Your task to perform on an android device: How much does a 2 bedroom apartment rent for in Denver? Image 0: 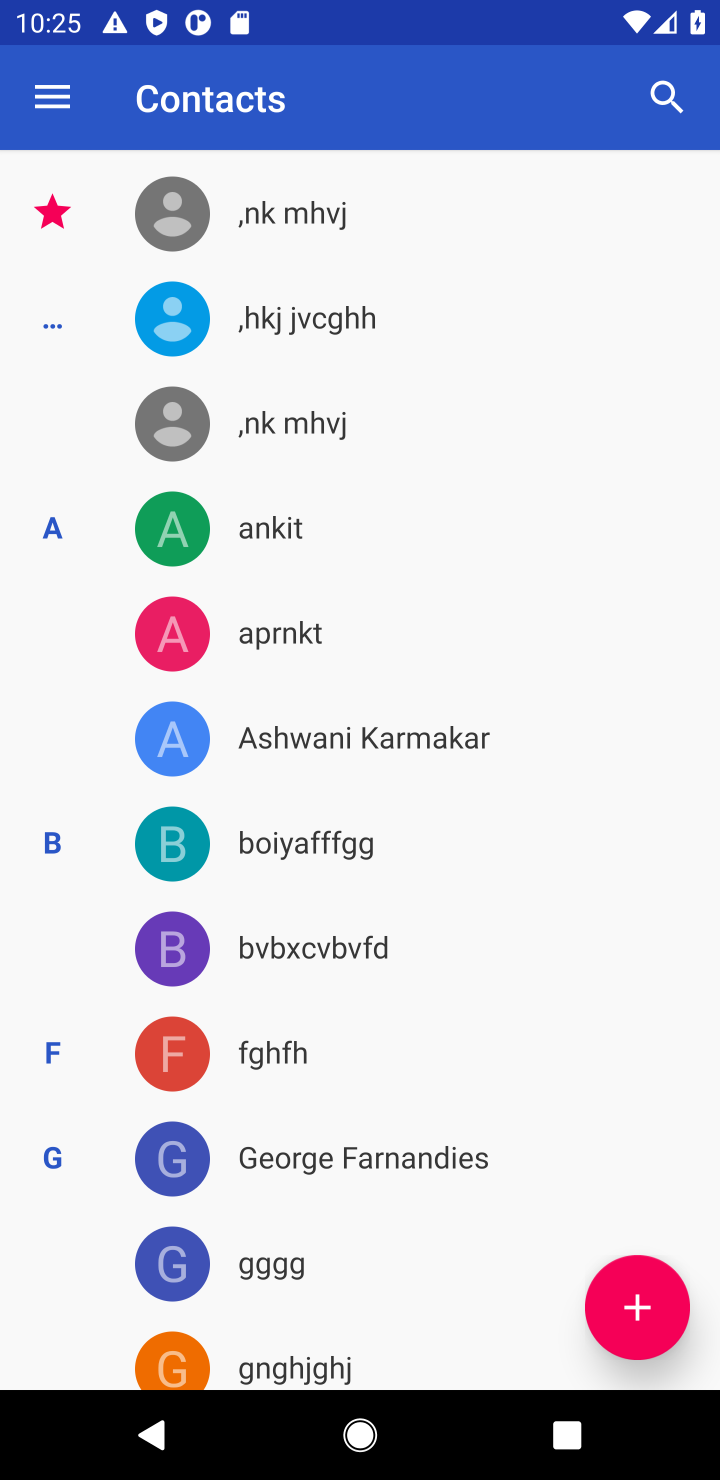
Step 0: press home button
Your task to perform on an android device: How much does a 2 bedroom apartment rent for in Denver? Image 1: 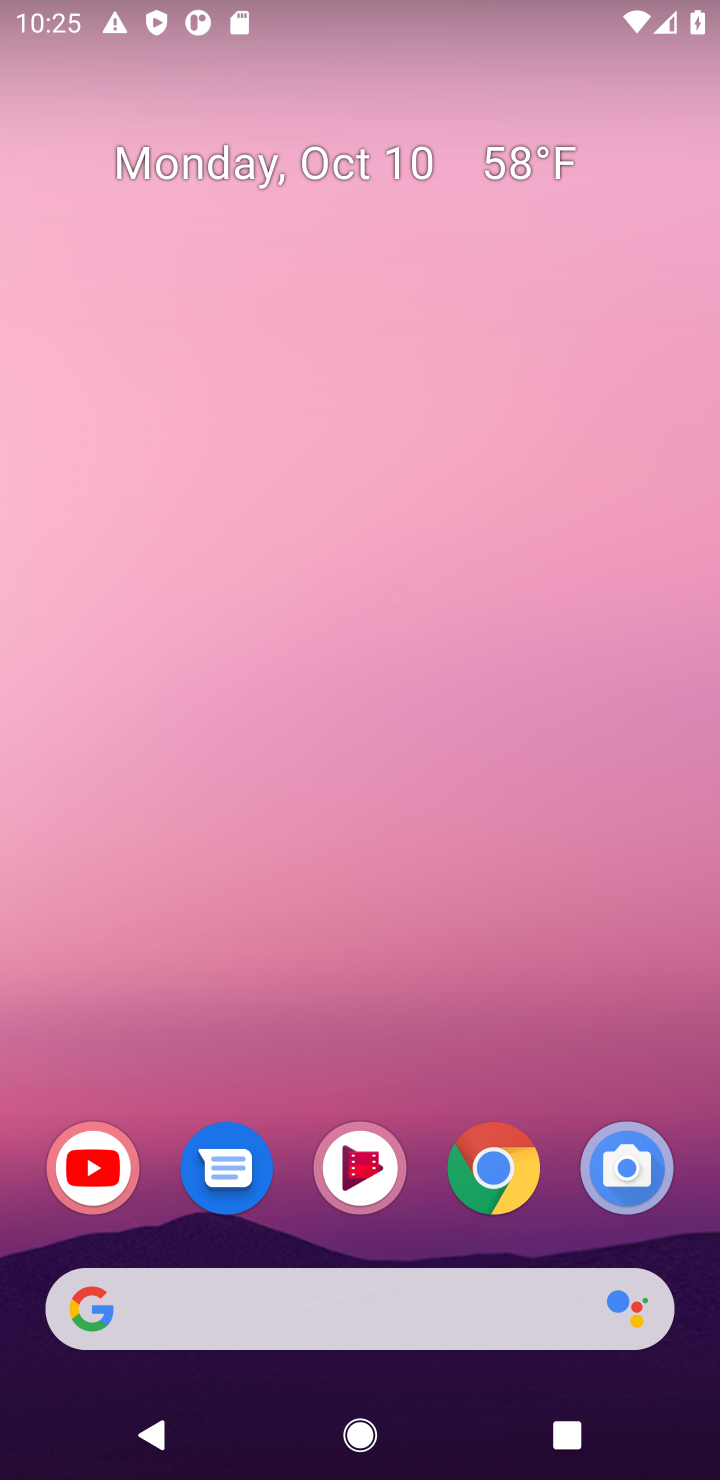
Step 1: click (352, 1298)
Your task to perform on an android device: How much does a 2 bedroom apartment rent for in Denver? Image 2: 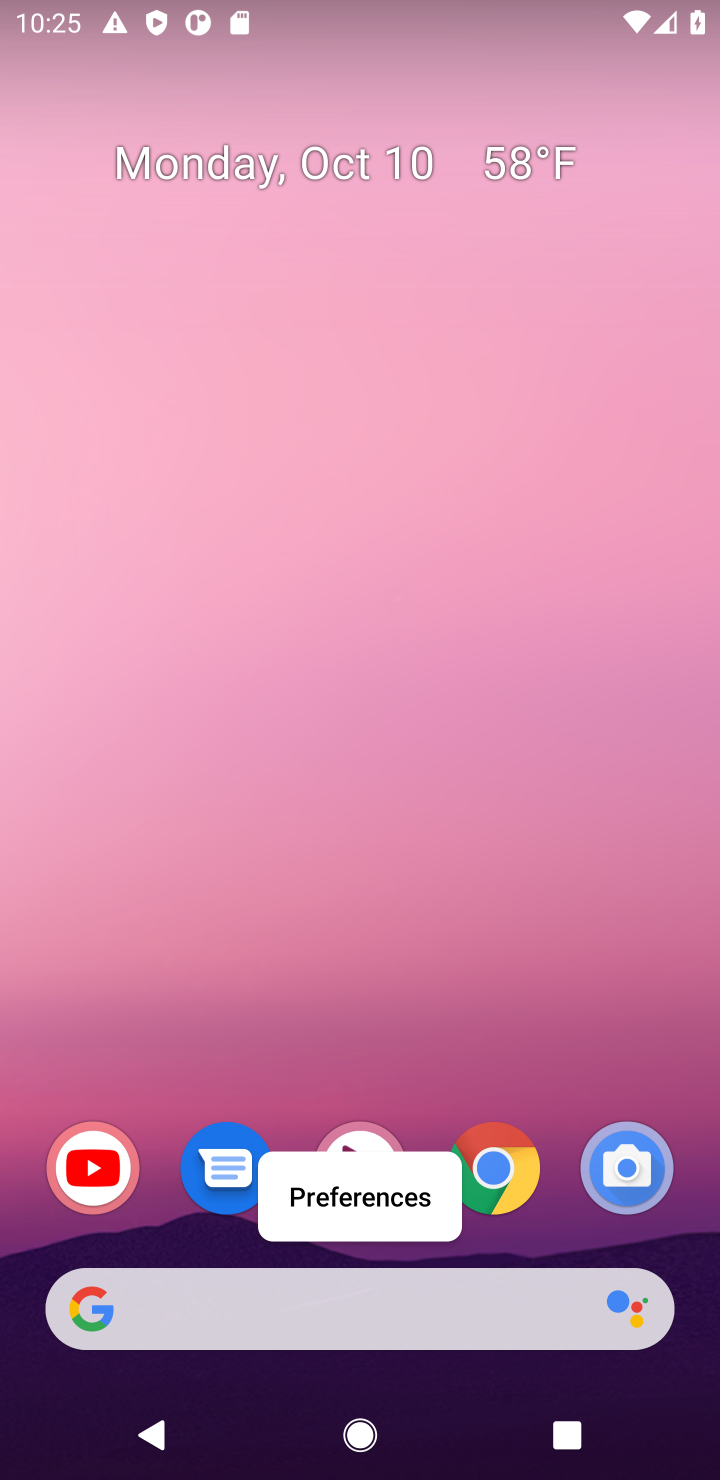
Step 2: click (340, 1305)
Your task to perform on an android device: How much does a 2 bedroom apartment rent for in Denver? Image 3: 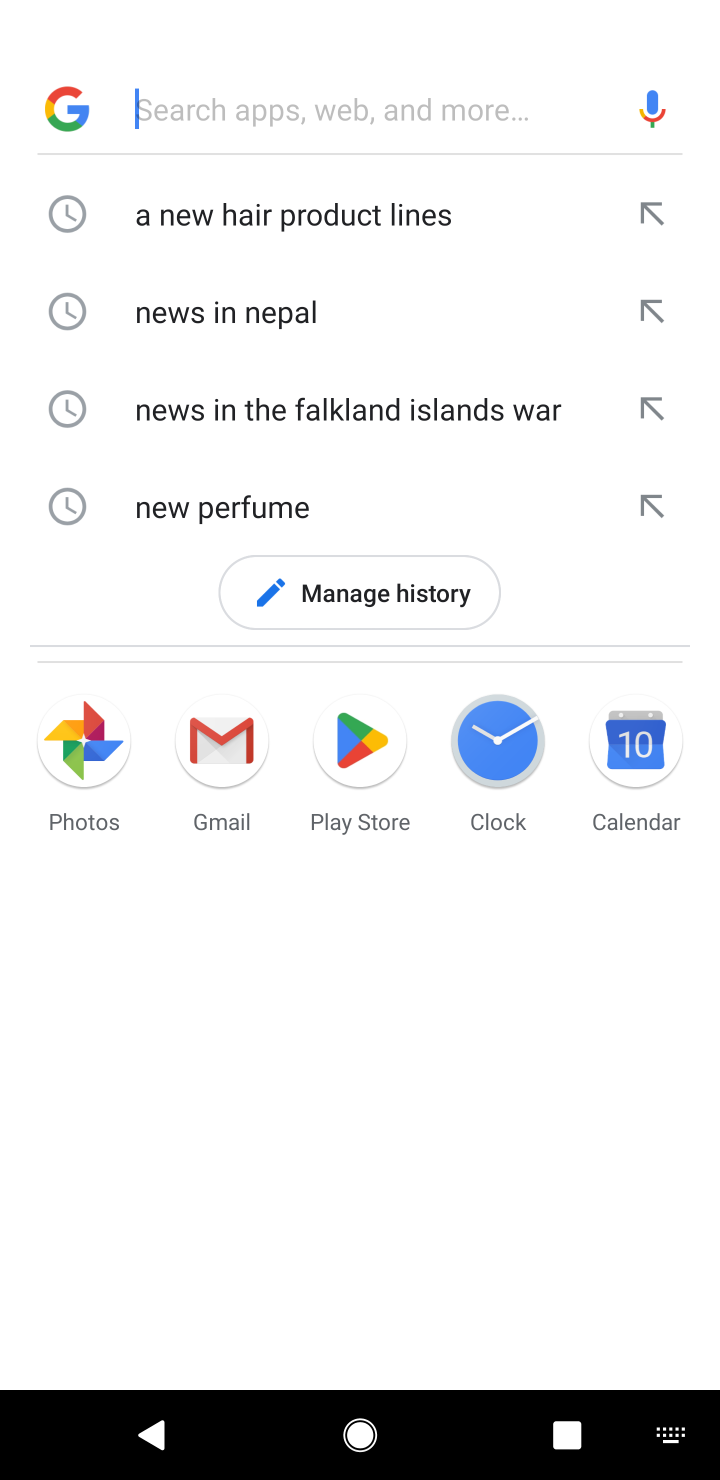
Step 3: type "2 bedroom apartment rent for in Denver"
Your task to perform on an android device: How much does a 2 bedroom apartment rent for in Denver? Image 4: 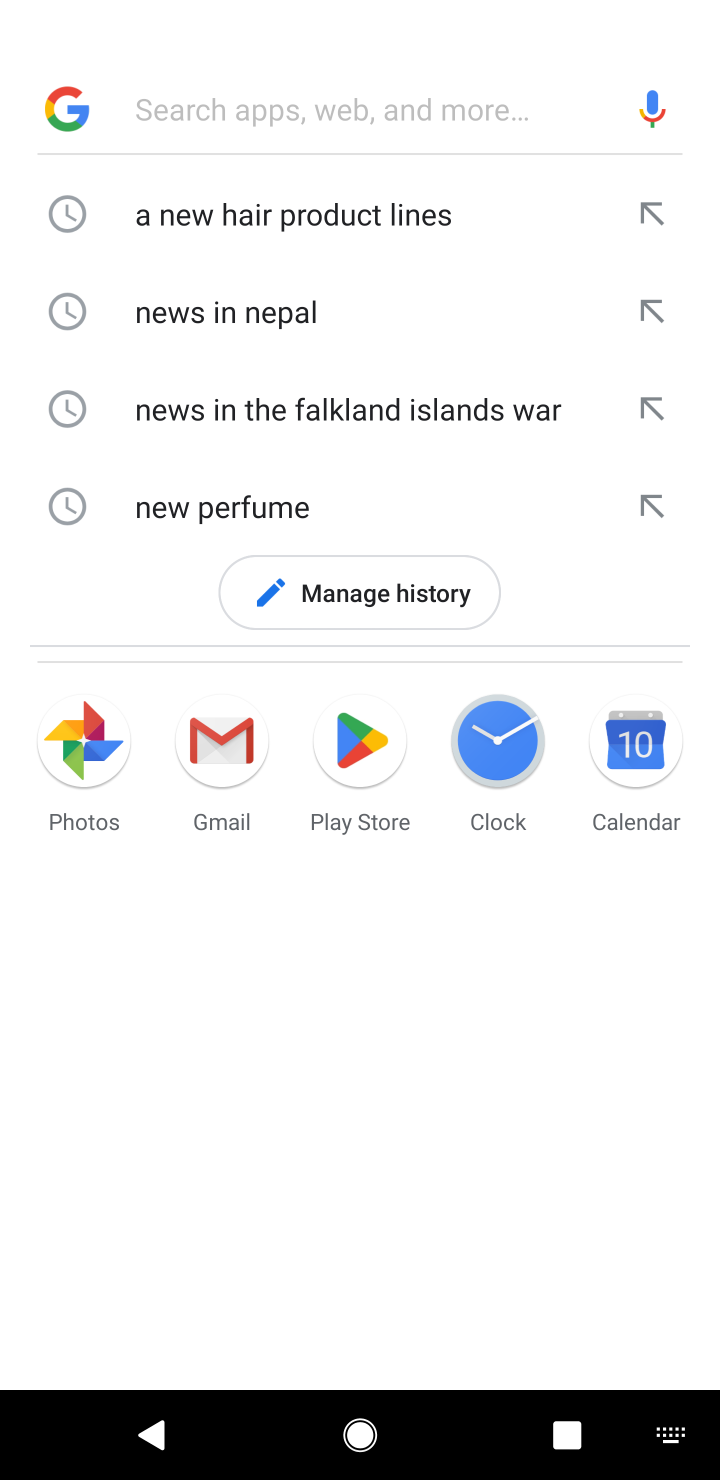
Step 4: click (361, 102)
Your task to perform on an android device: How much does a 2 bedroom apartment rent for in Denver? Image 5: 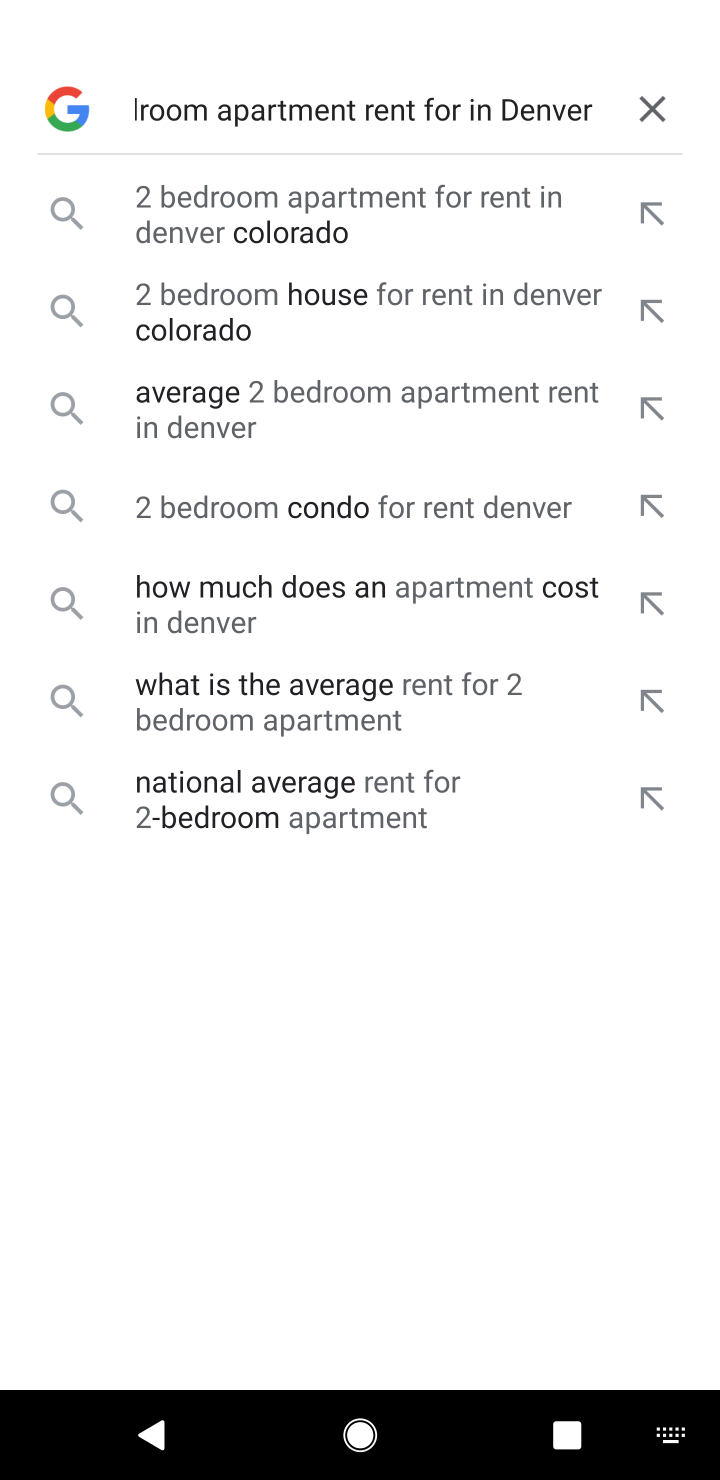
Step 5: type ""
Your task to perform on an android device: How much does a 2 bedroom apartment rent for in Denver? Image 6: 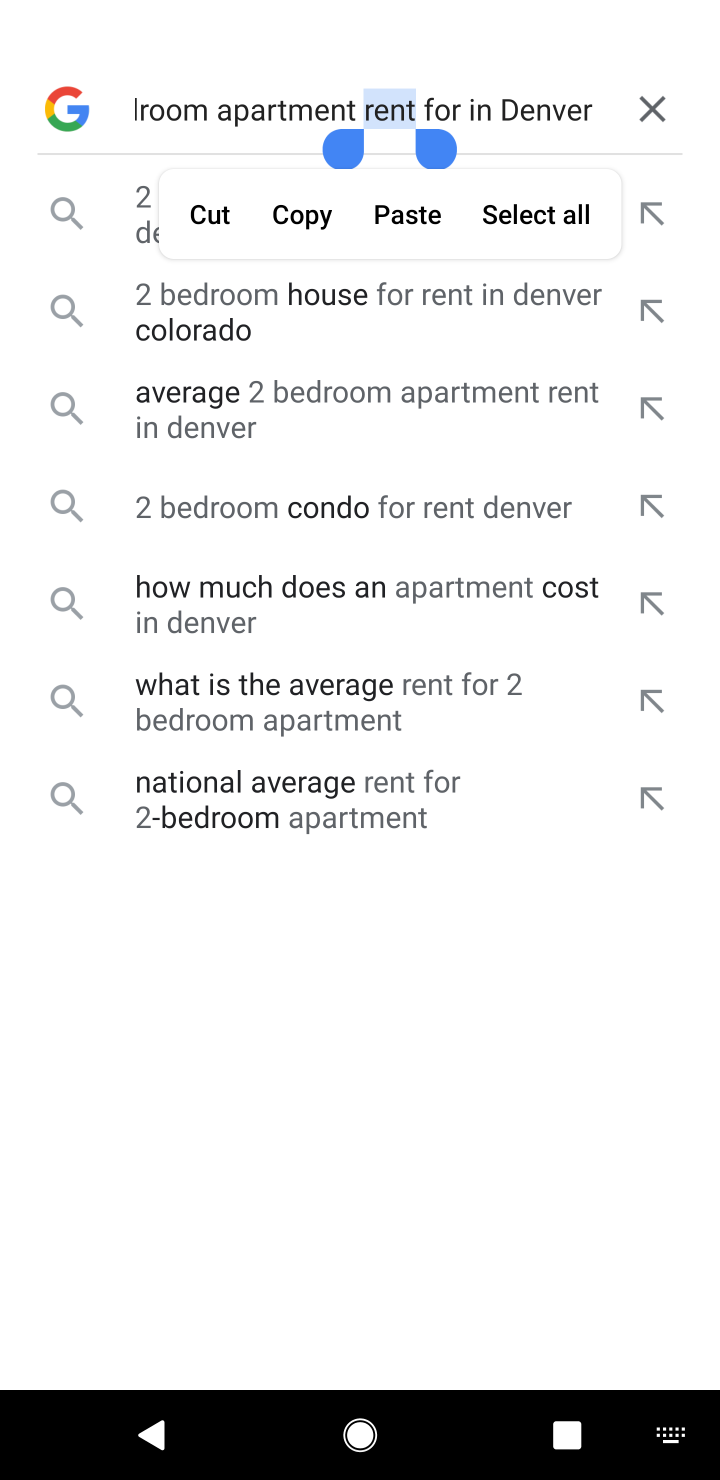
Step 6: click (274, 953)
Your task to perform on an android device: How much does a 2 bedroom apartment rent for in Denver? Image 7: 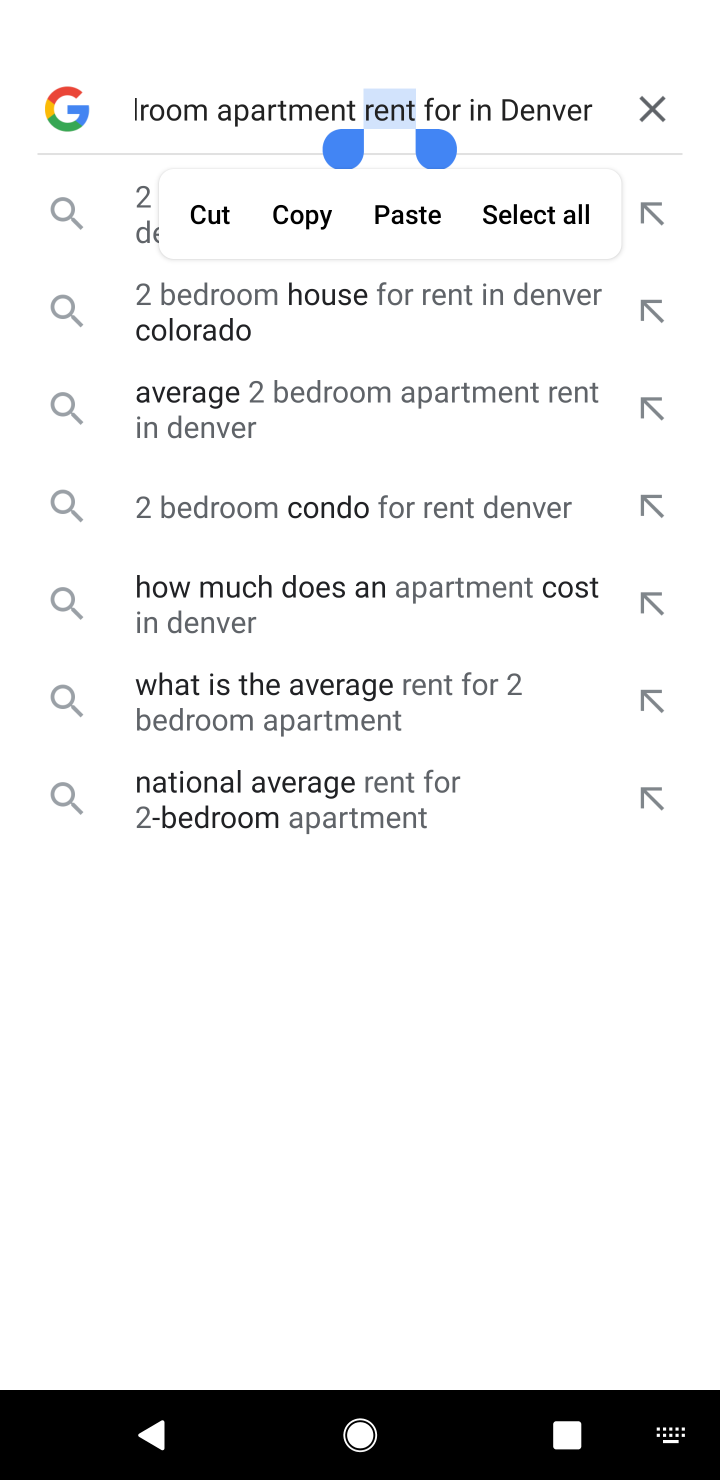
Step 7: click (132, 182)
Your task to perform on an android device: How much does a 2 bedroom apartment rent for in Denver? Image 8: 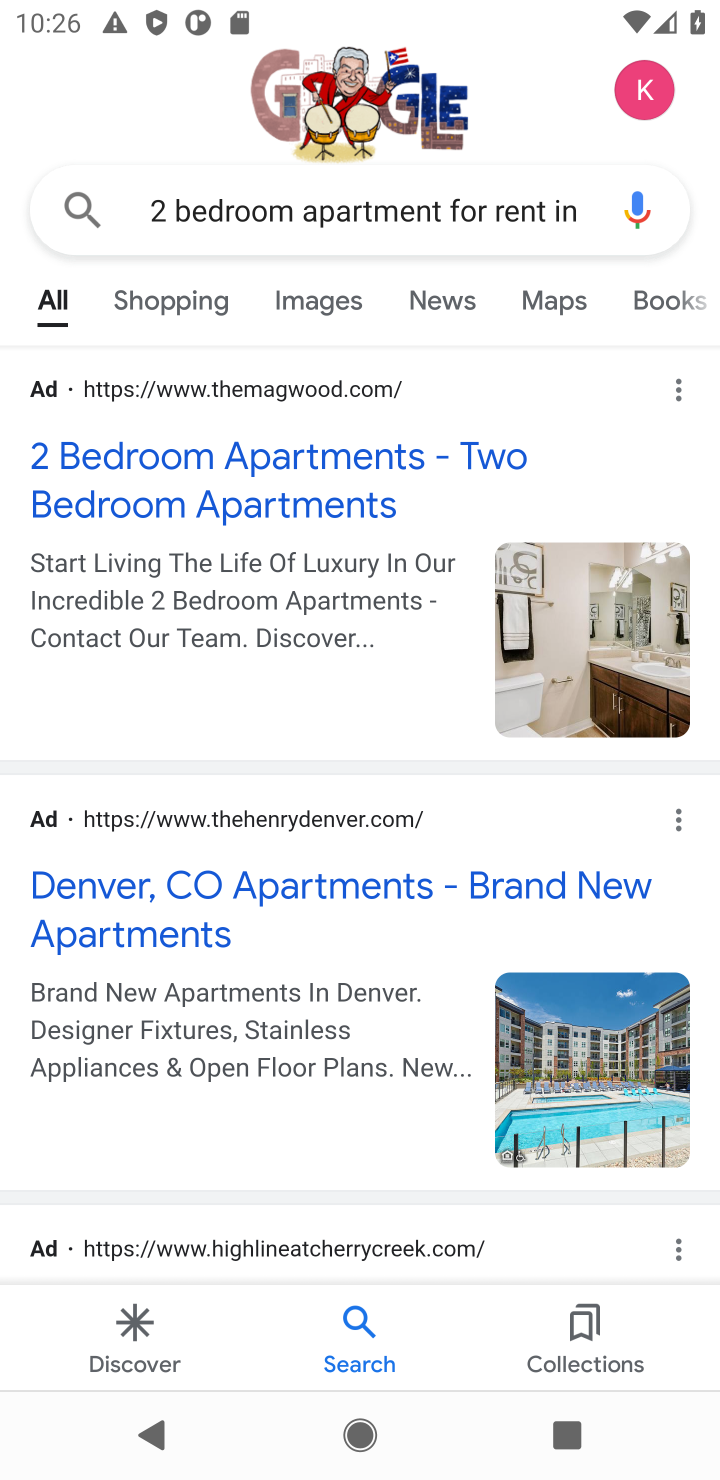
Step 8: drag from (256, 931) to (312, 242)
Your task to perform on an android device: How much does a 2 bedroom apartment rent for in Denver? Image 9: 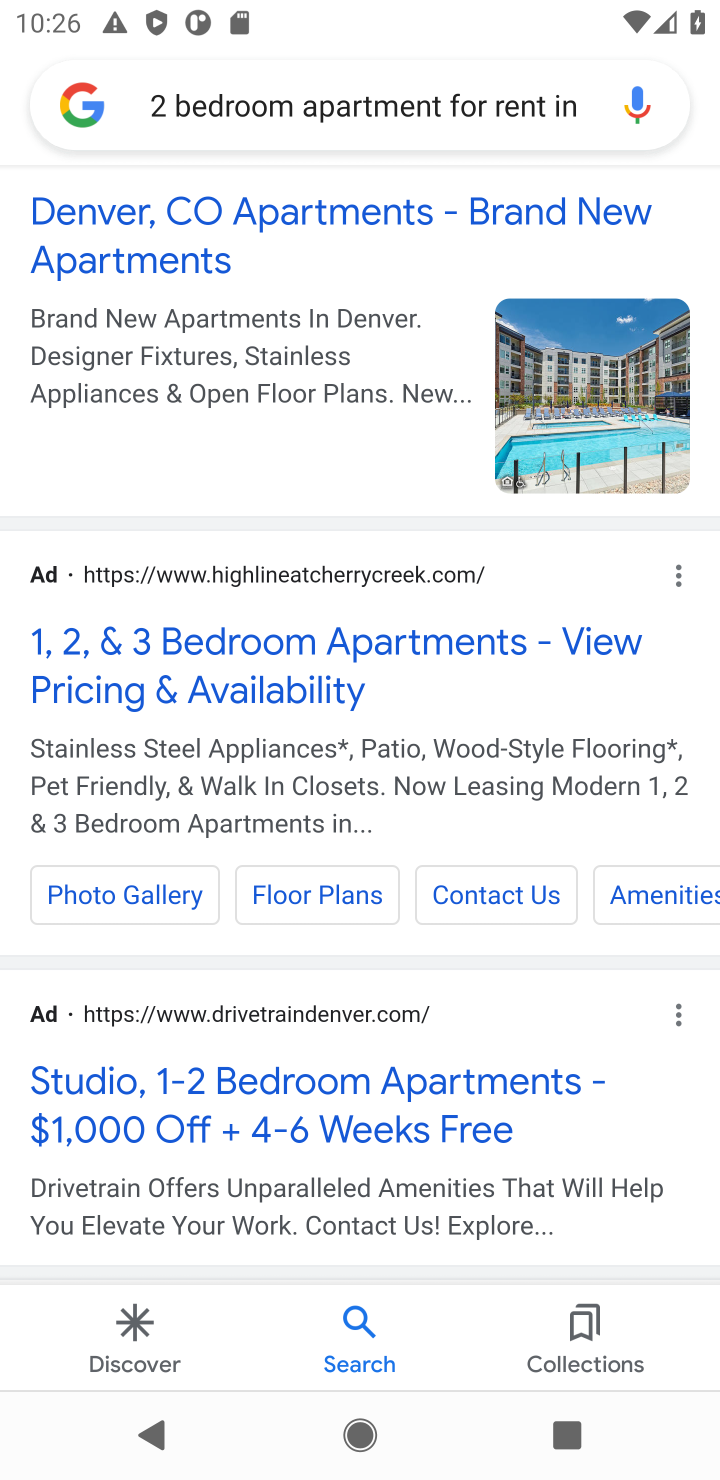
Step 9: drag from (302, 1032) to (344, 387)
Your task to perform on an android device: How much does a 2 bedroom apartment rent for in Denver? Image 10: 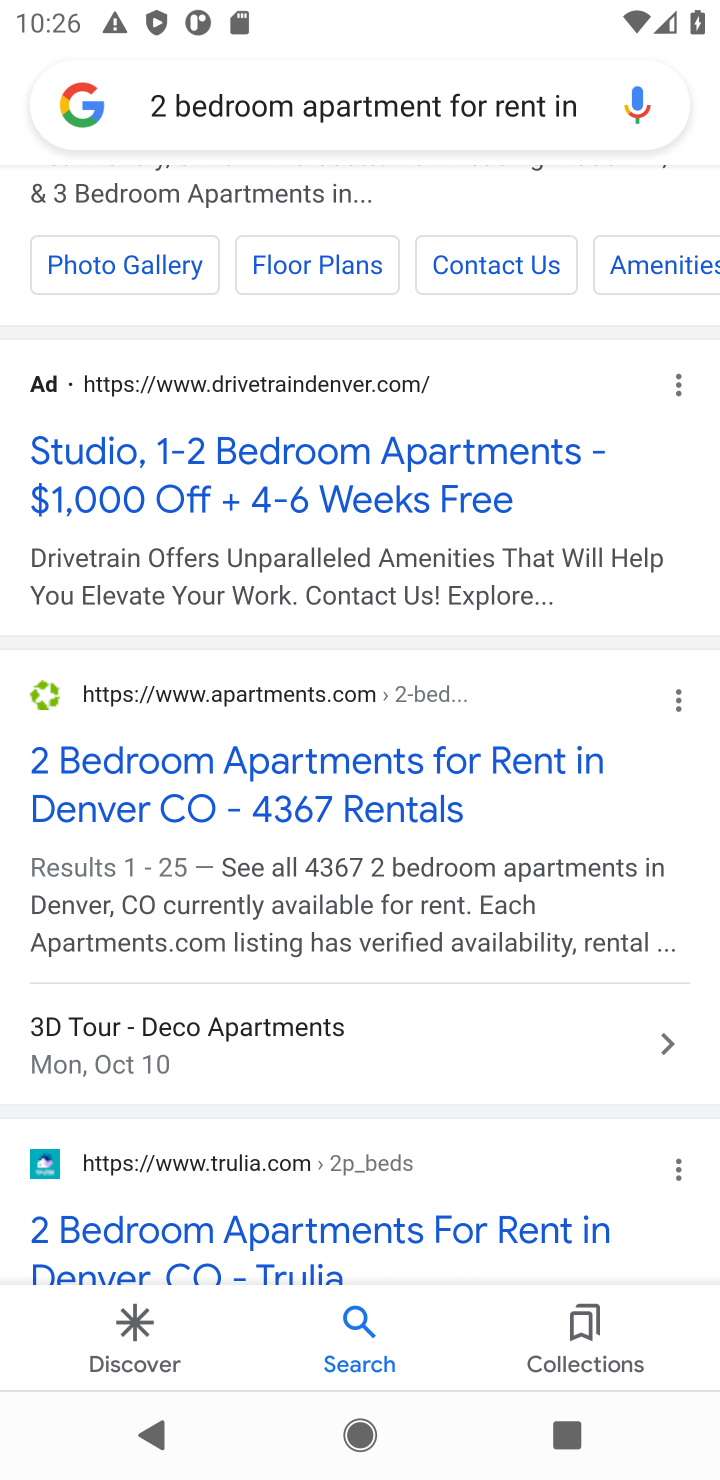
Step 10: click (209, 801)
Your task to perform on an android device: How much does a 2 bedroom apartment rent for in Denver? Image 11: 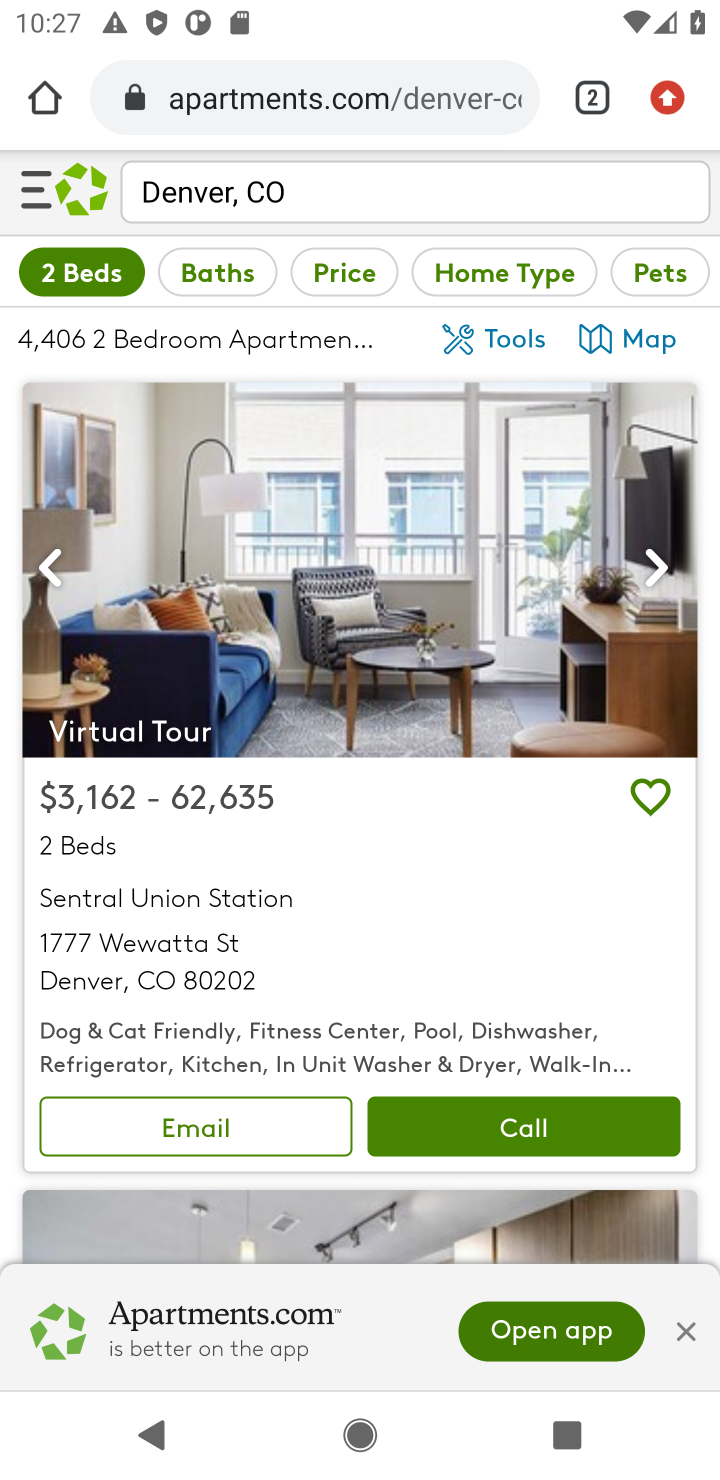
Step 11: task complete